Your task to perform on an android device: What's the weather going to be tomorrow? Image 0: 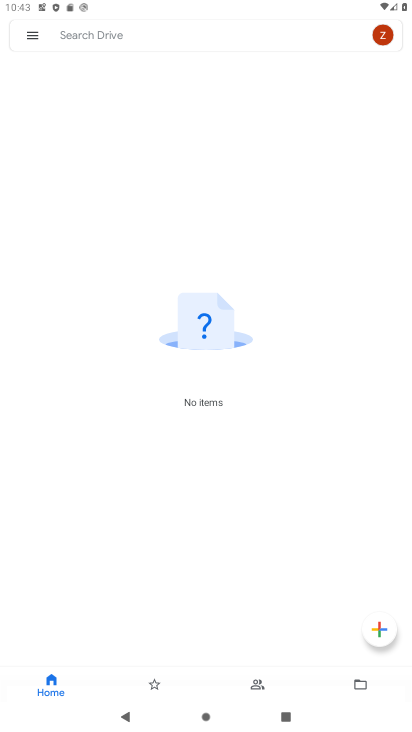
Step 0: press home button
Your task to perform on an android device: What's the weather going to be tomorrow? Image 1: 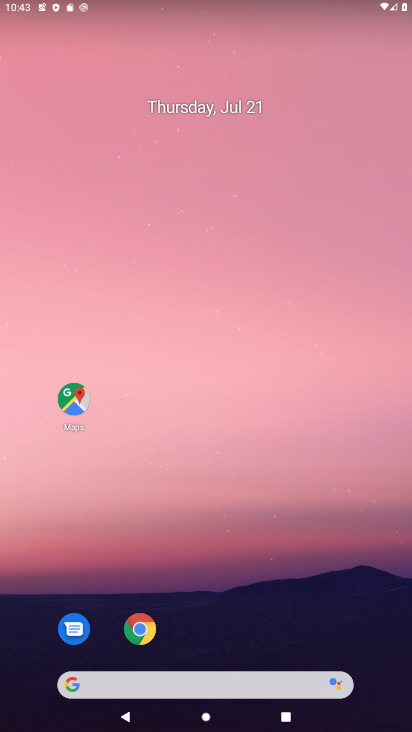
Step 1: click (70, 683)
Your task to perform on an android device: What's the weather going to be tomorrow? Image 2: 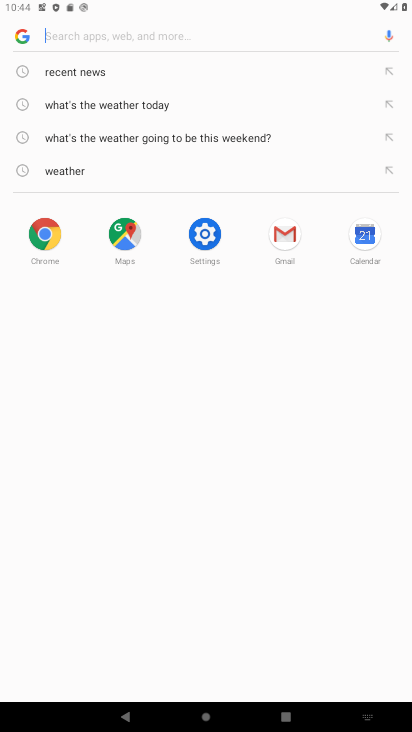
Step 2: type "What's the weather going to be tomorrow?"
Your task to perform on an android device: What's the weather going to be tomorrow? Image 3: 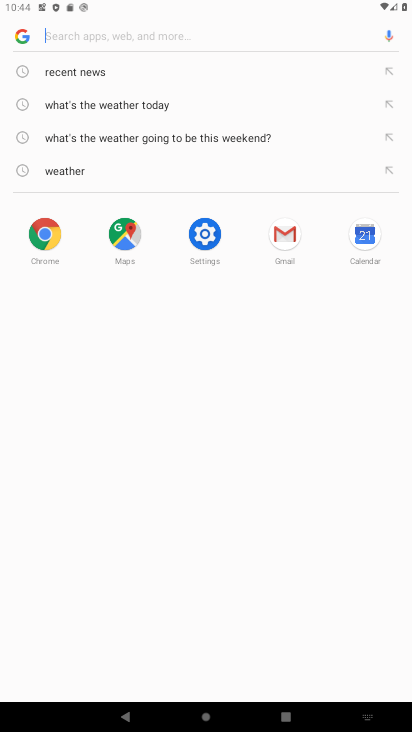
Step 3: click (78, 30)
Your task to perform on an android device: What's the weather going to be tomorrow? Image 4: 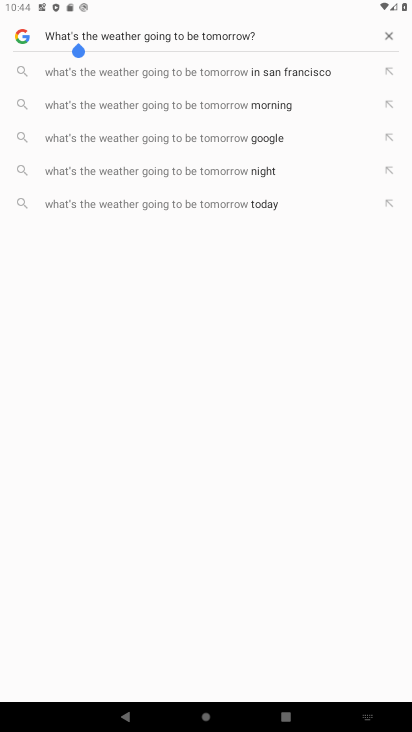
Step 4: press enter
Your task to perform on an android device: What's the weather going to be tomorrow? Image 5: 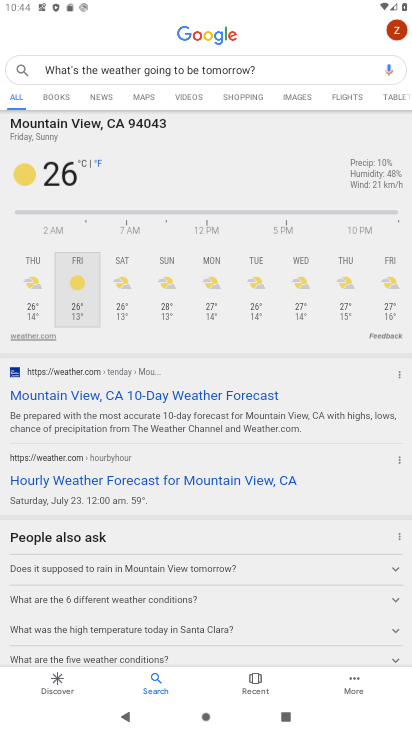
Step 5: task complete